Your task to perform on an android device: Open network settings Image 0: 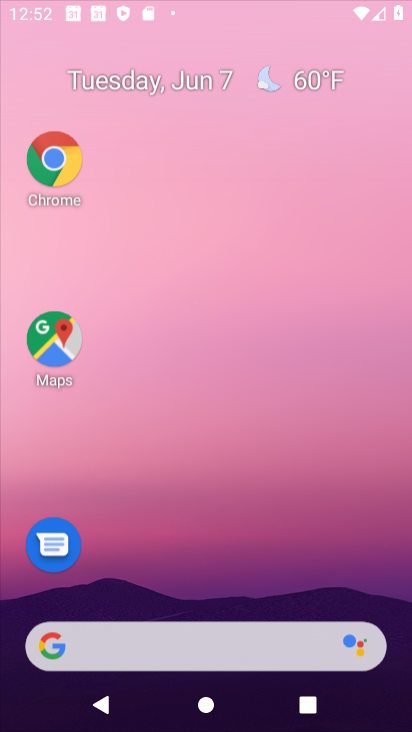
Step 0: click (313, 0)
Your task to perform on an android device: Open network settings Image 1: 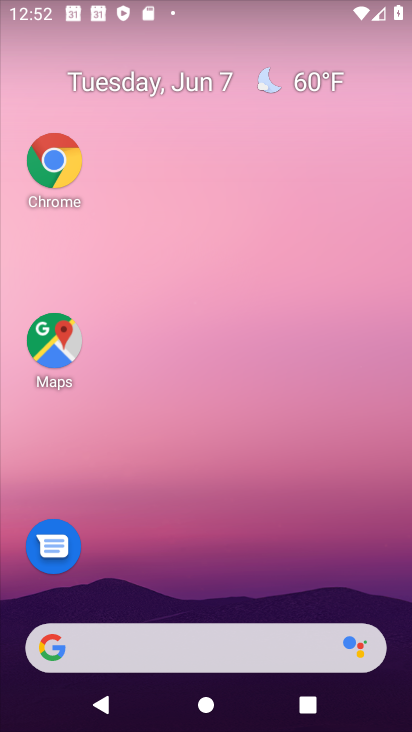
Step 1: drag from (216, 529) to (334, 49)
Your task to perform on an android device: Open network settings Image 2: 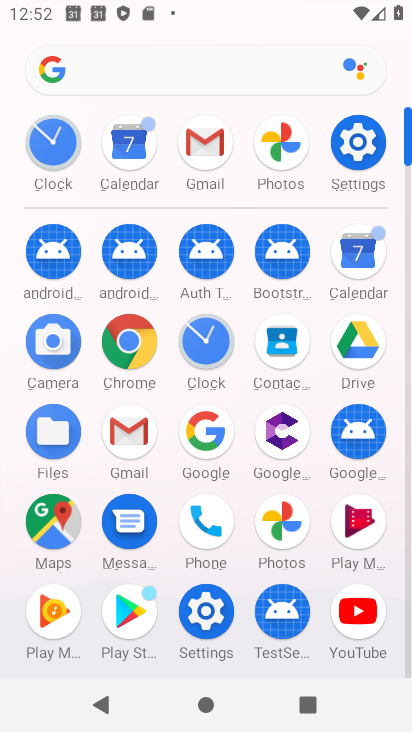
Step 2: click (190, 600)
Your task to perform on an android device: Open network settings Image 3: 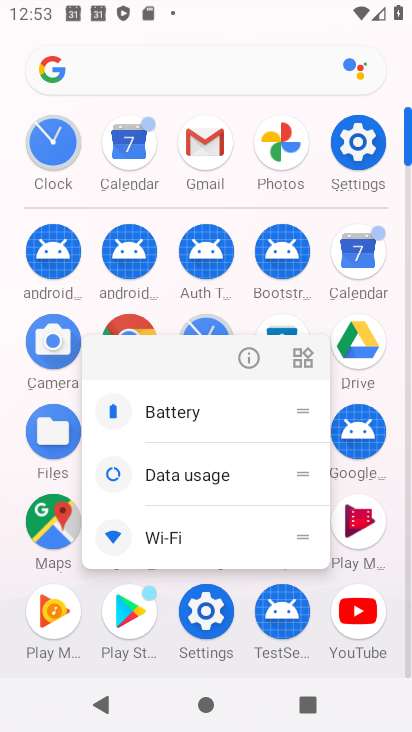
Step 3: click (254, 357)
Your task to perform on an android device: Open network settings Image 4: 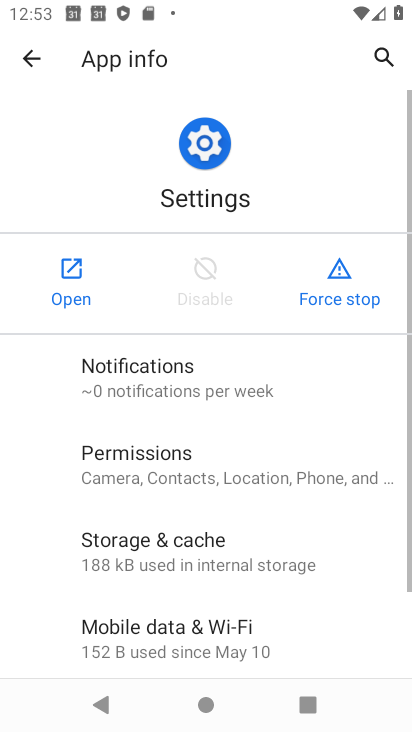
Step 4: click (64, 280)
Your task to perform on an android device: Open network settings Image 5: 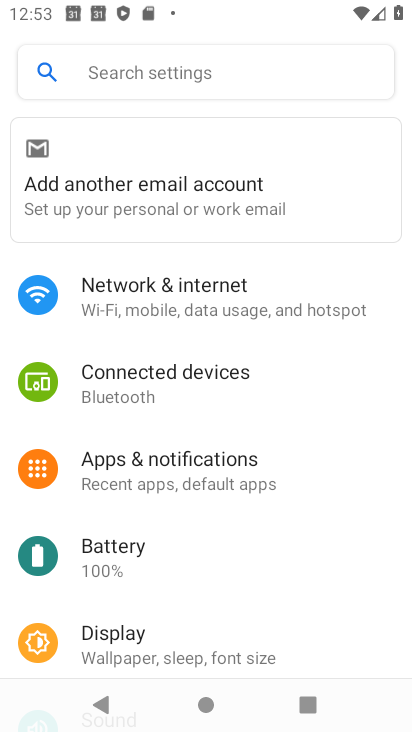
Step 5: click (182, 298)
Your task to perform on an android device: Open network settings Image 6: 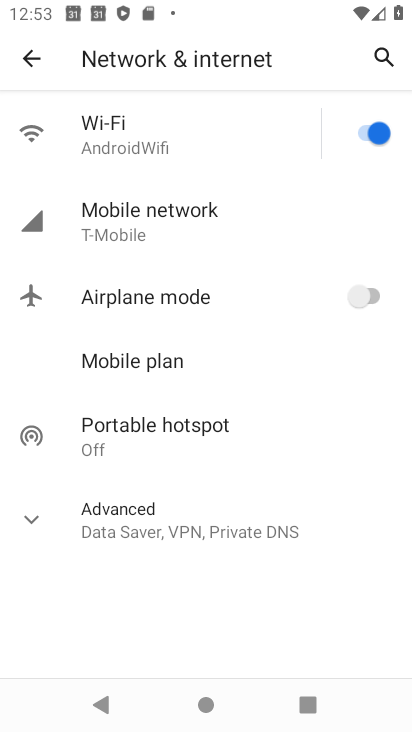
Step 6: task complete